Your task to perform on an android device: turn off smart reply in the gmail app Image 0: 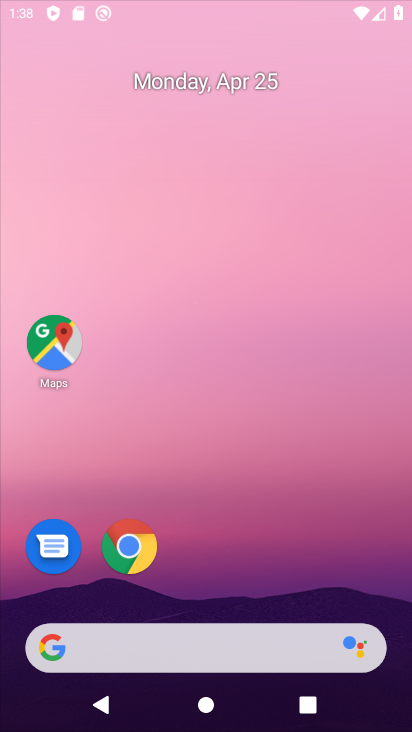
Step 0: click (375, 479)
Your task to perform on an android device: turn off smart reply in the gmail app Image 1: 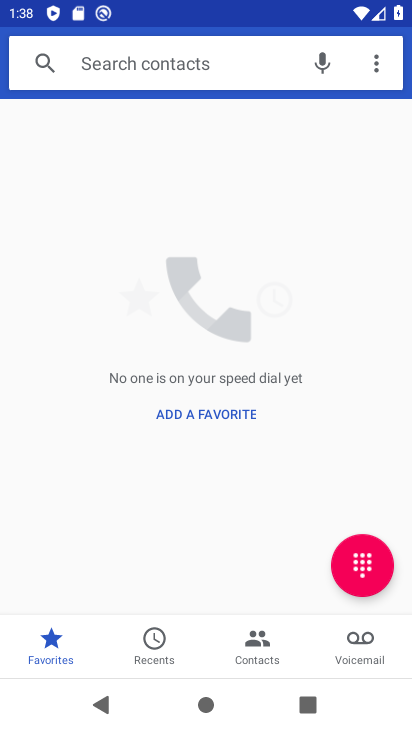
Step 1: press back button
Your task to perform on an android device: turn off smart reply in the gmail app Image 2: 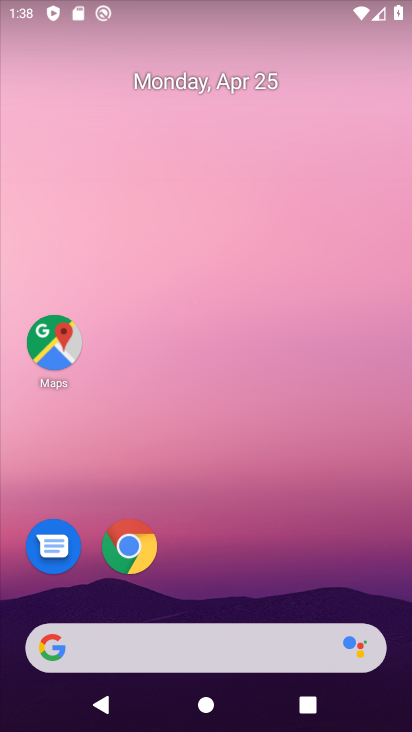
Step 2: drag from (211, 587) to (260, 47)
Your task to perform on an android device: turn off smart reply in the gmail app Image 3: 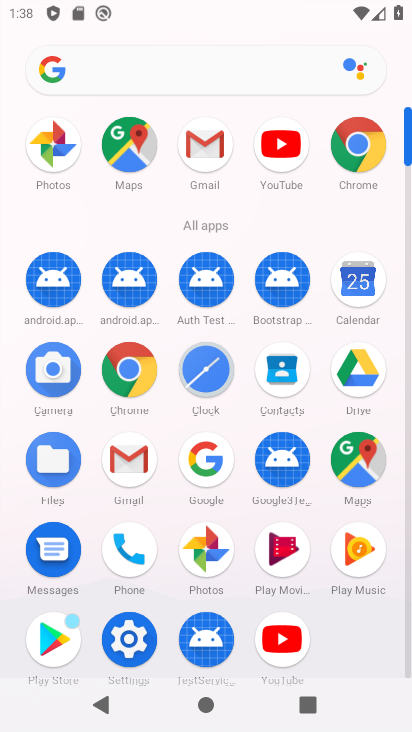
Step 3: click (149, 467)
Your task to perform on an android device: turn off smart reply in the gmail app Image 4: 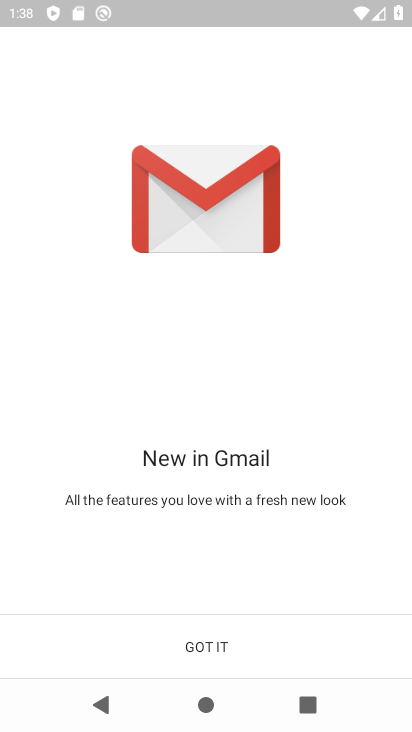
Step 4: click (209, 649)
Your task to perform on an android device: turn off smart reply in the gmail app Image 5: 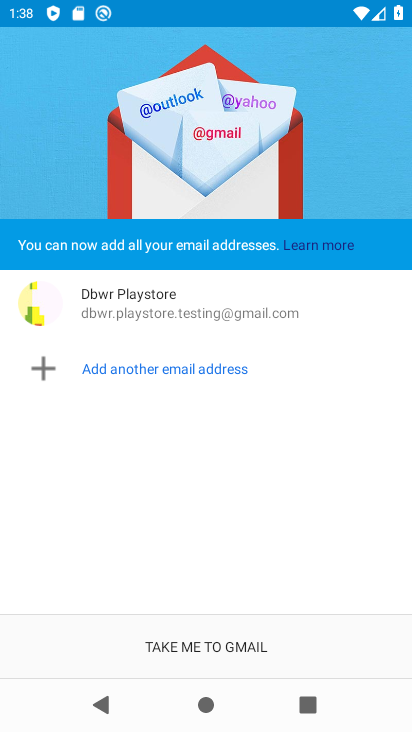
Step 5: click (210, 650)
Your task to perform on an android device: turn off smart reply in the gmail app Image 6: 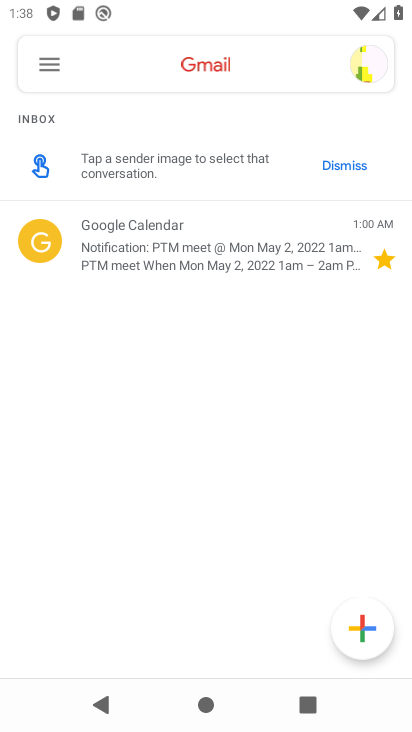
Step 6: click (58, 70)
Your task to perform on an android device: turn off smart reply in the gmail app Image 7: 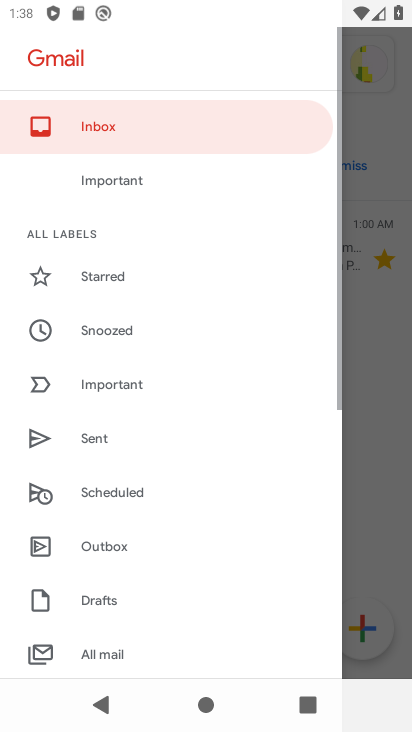
Step 7: drag from (173, 583) to (201, 314)
Your task to perform on an android device: turn off smart reply in the gmail app Image 8: 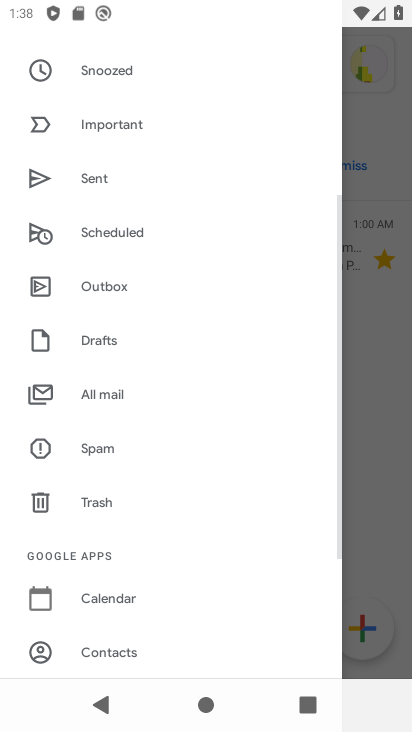
Step 8: drag from (166, 606) to (195, 372)
Your task to perform on an android device: turn off smart reply in the gmail app Image 9: 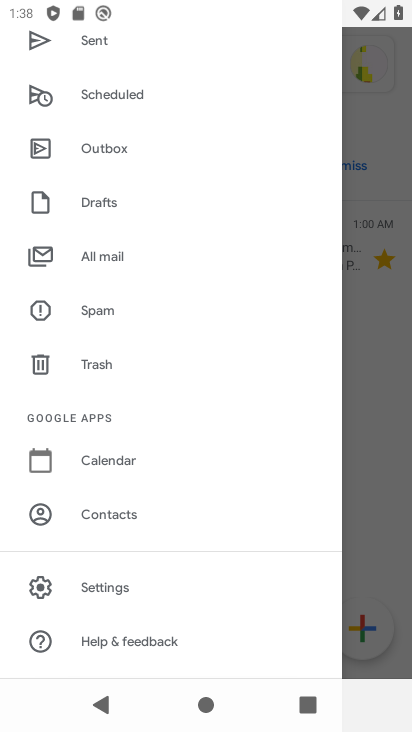
Step 9: click (118, 590)
Your task to perform on an android device: turn off smart reply in the gmail app Image 10: 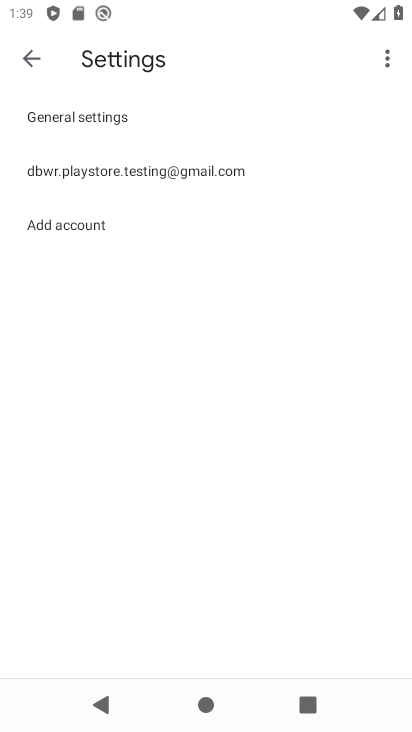
Step 10: click (183, 189)
Your task to perform on an android device: turn off smart reply in the gmail app Image 11: 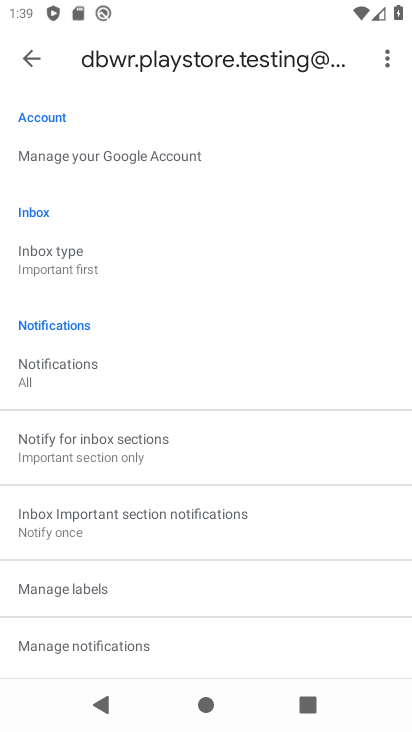
Step 11: drag from (138, 494) to (241, 154)
Your task to perform on an android device: turn off smart reply in the gmail app Image 12: 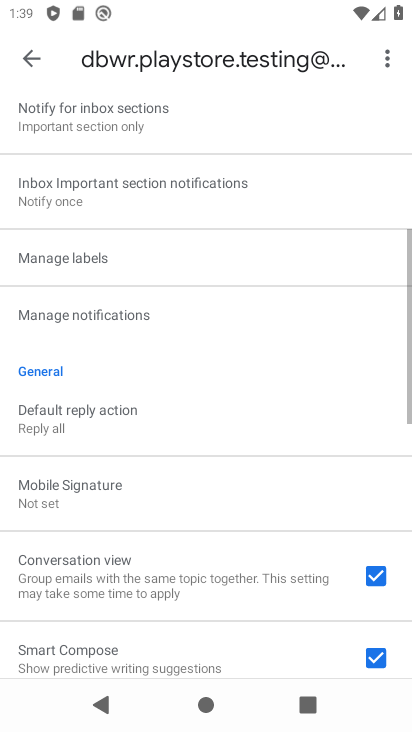
Step 12: drag from (153, 595) to (245, 249)
Your task to perform on an android device: turn off smart reply in the gmail app Image 13: 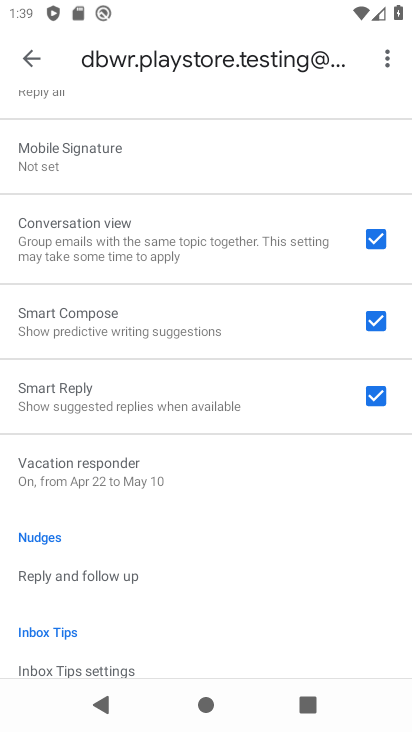
Step 13: click (378, 324)
Your task to perform on an android device: turn off smart reply in the gmail app Image 14: 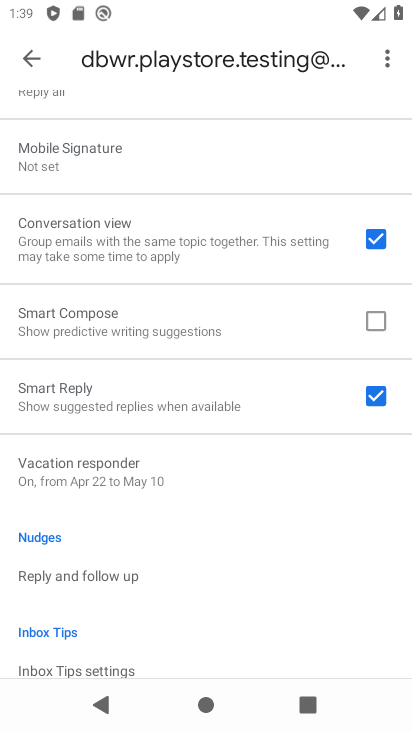
Step 14: task complete